Your task to perform on an android device: find photos in the google photos app Image 0: 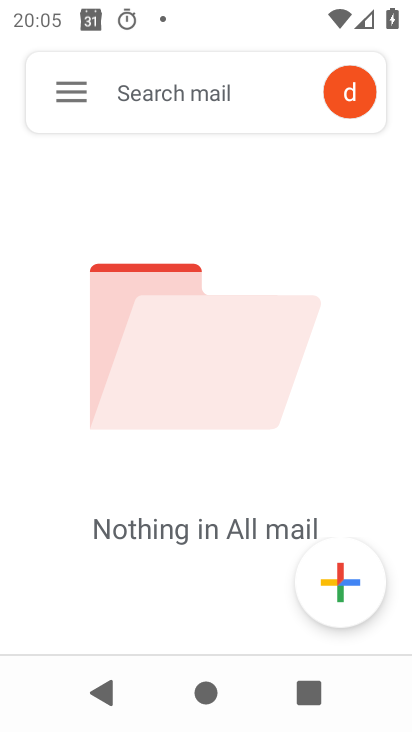
Step 0: press home button
Your task to perform on an android device: find photos in the google photos app Image 1: 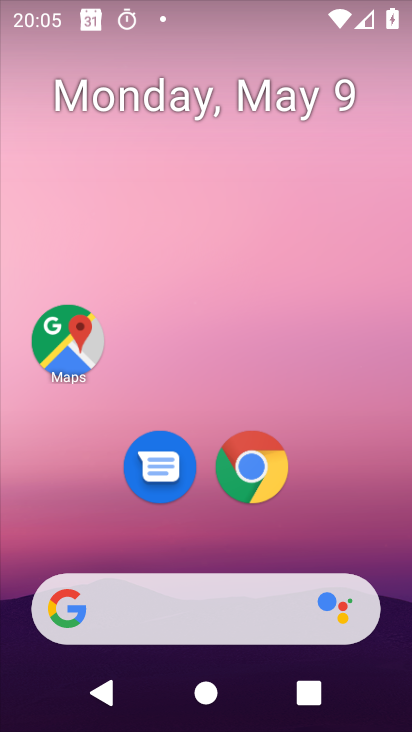
Step 1: drag from (377, 535) to (316, 105)
Your task to perform on an android device: find photos in the google photos app Image 2: 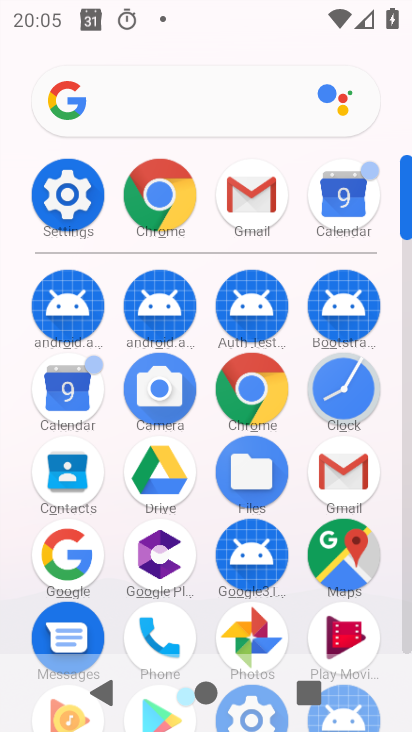
Step 2: click (255, 649)
Your task to perform on an android device: find photos in the google photos app Image 3: 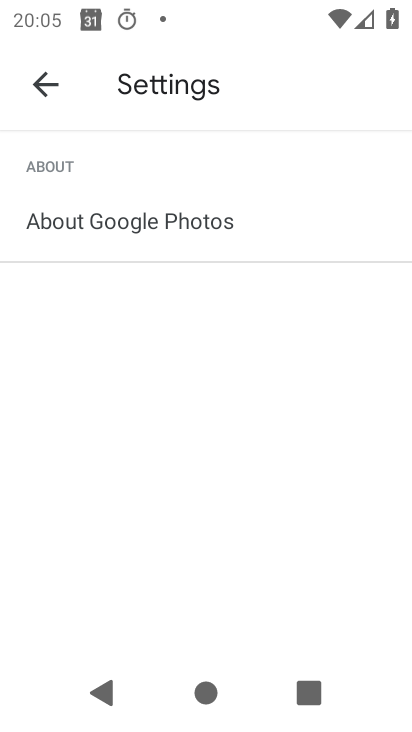
Step 3: click (37, 92)
Your task to perform on an android device: find photos in the google photos app Image 4: 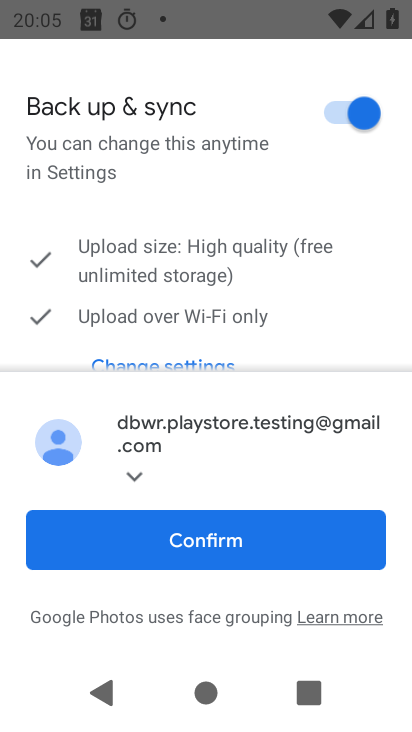
Step 4: click (188, 546)
Your task to perform on an android device: find photos in the google photos app Image 5: 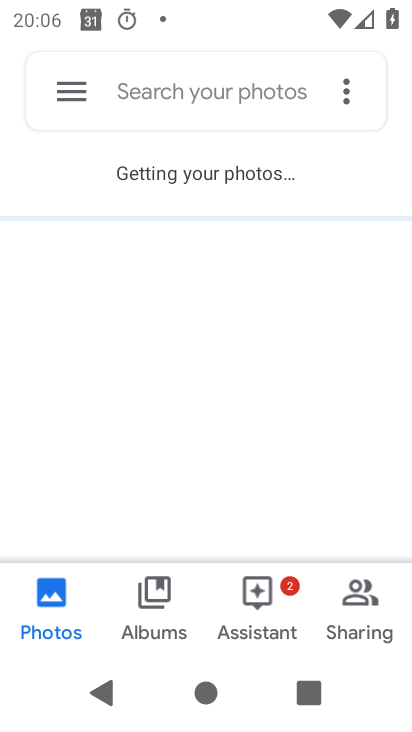
Step 5: task complete